Your task to perform on an android device: set default search engine in the chrome app Image 0: 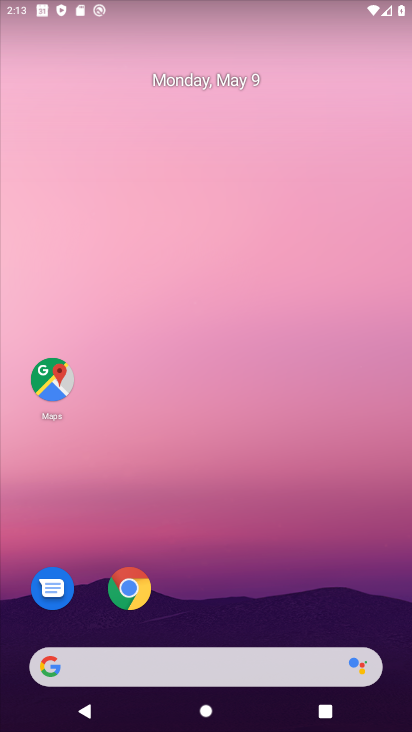
Step 0: drag from (330, 602) to (337, 132)
Your task to perform on an android device: set default search engine in the chrome app Image 1: 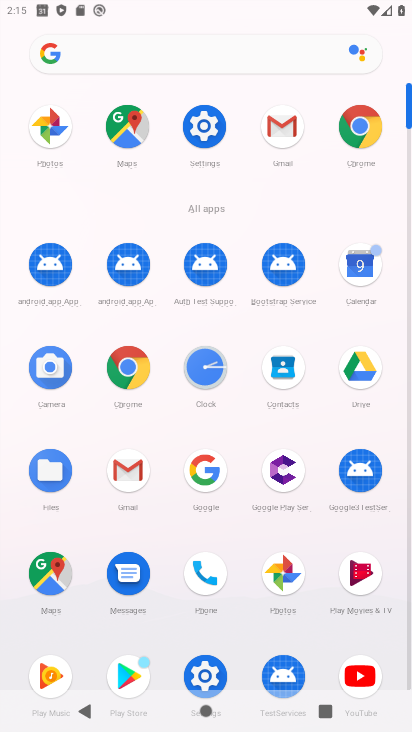
Step 1: click (141, 374)
Your task to perform on an android device: set default search engine in the chrome app Image 2: 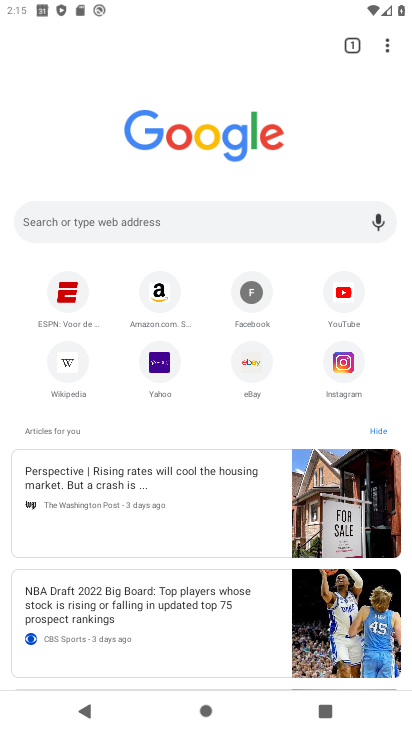
Step 2: click (389, 42)
Your task to perform on an android device: set default search engine in the chrome app Image 3: 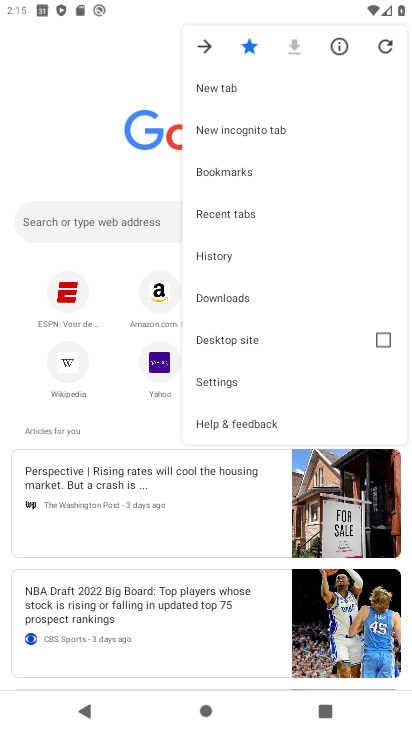
Step 3: click (237, 386)
Your task to perform on an android device: set default search engine in the chrome app Image 4: 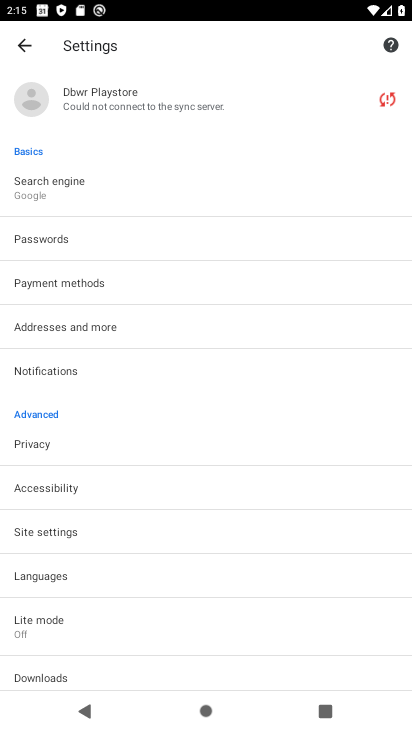
Step 4: click (114, 201)
Your task to perform on an android device: set default search engine in the chrome app Image 5: 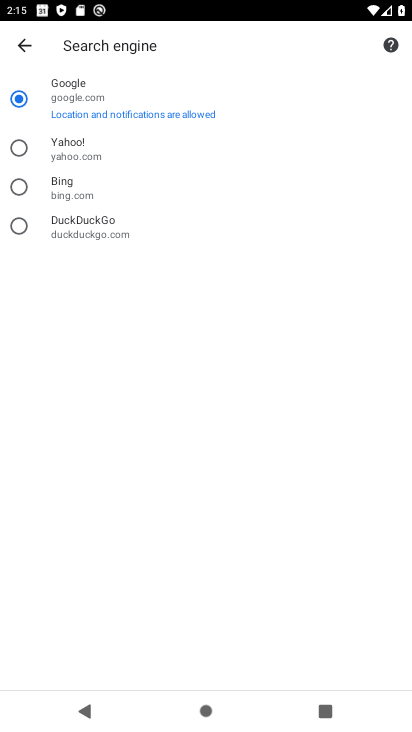
Step 5: click (113, 164)
Your task to perform on an android device: set default search engine in the chrome app Image 6: 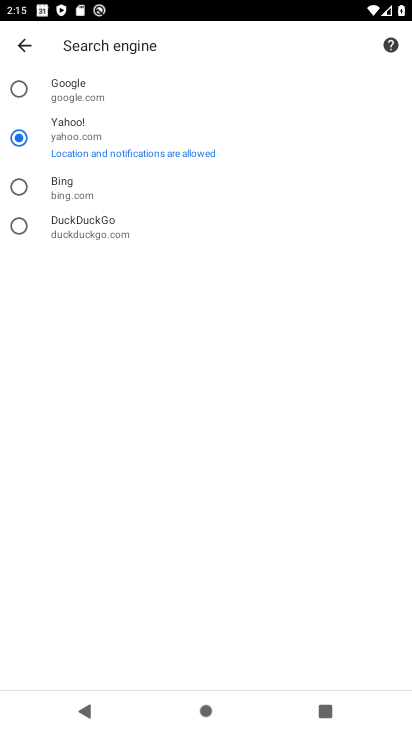
Step 6: task complete